Your task to perform on an android device: set an alarm Image 0: 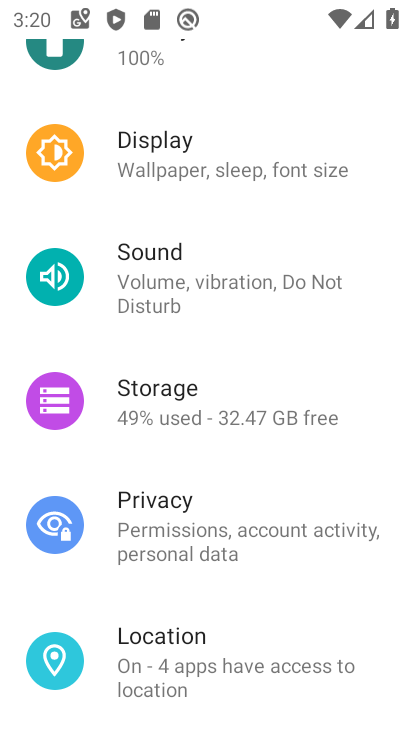
Step 0: press home button
Your task to perform on an android device: set an alarm Image 1: 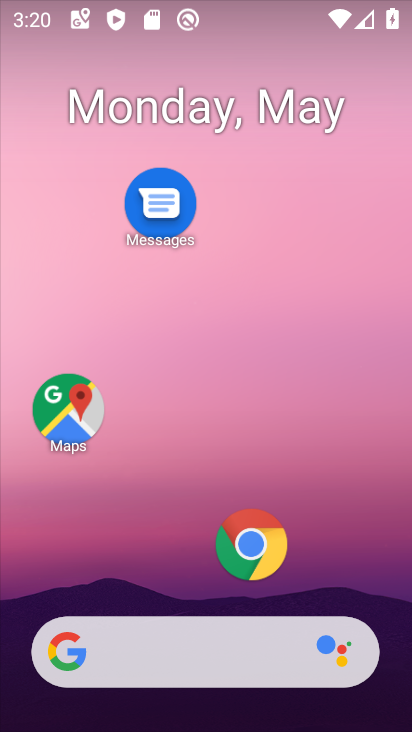
Step 1: drag from (185, 582) to (185, 235)
Your task to perform on an android device: set an alarm Image 2: 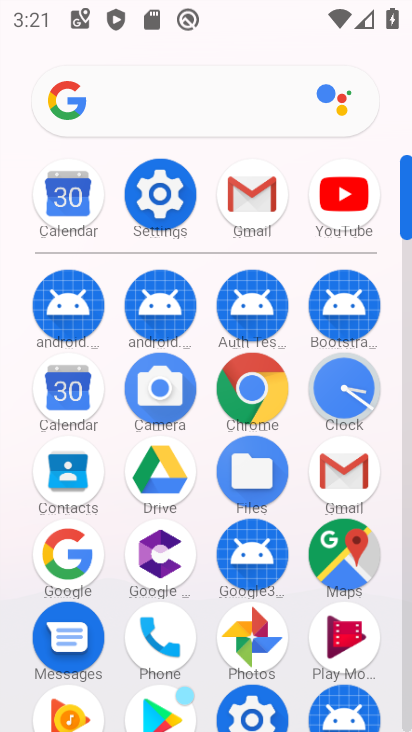
Step 2: click (340, 395)
Your task to perform on an android device: set an alarm Image 3: 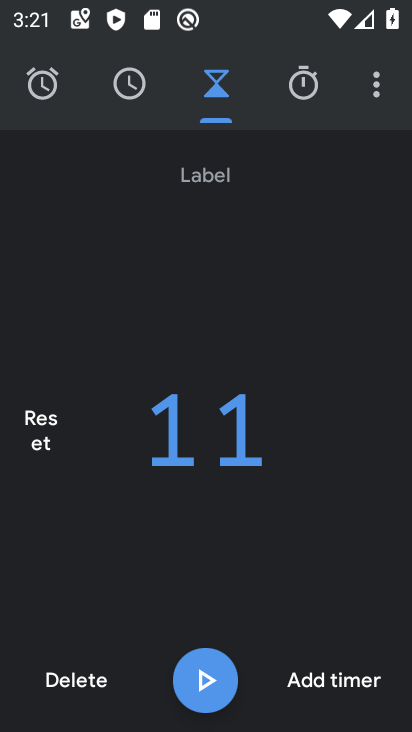
Step 3: click (61, 88)
Your task to perform on an android device: set an alarm Image 4: 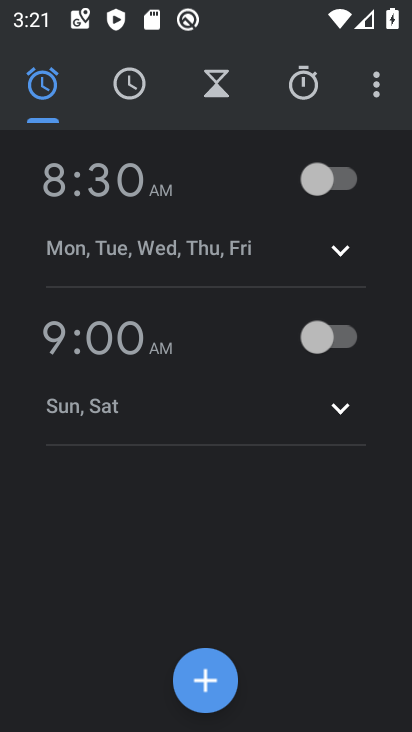
Step 4: click (345, 168)
Your task to perform on an android device: set an alarm Image 5: 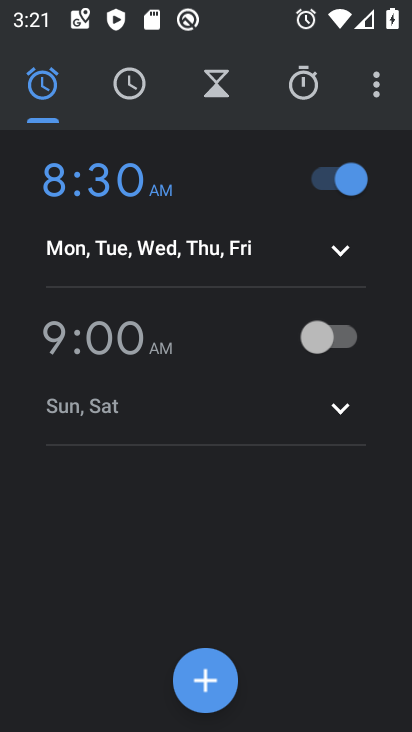
Step 5: task complete